Your task to perform on an android device: Open Maps and search for coffee Image 0: 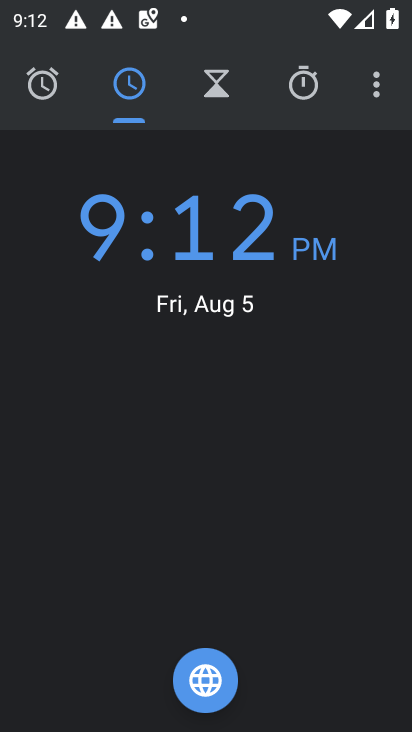
Step 0: press home button
Your task to perform on an android device: Open Maps and search for coffee Image 1: 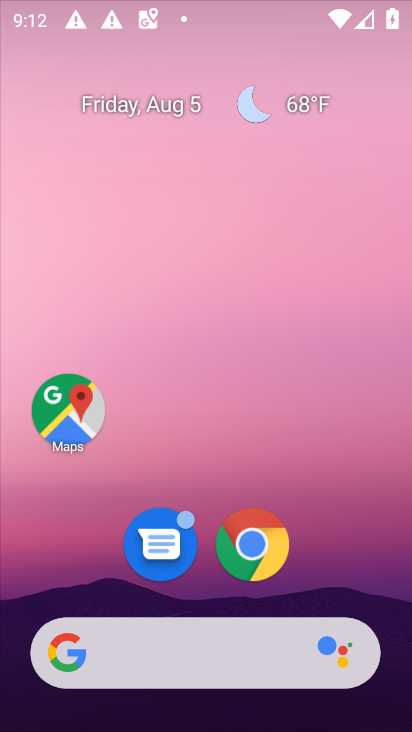
Step 1: drag from (293, 436) to (253, 6)
Your task to perform on an android device: Open Maps and search for coffee Image 2: 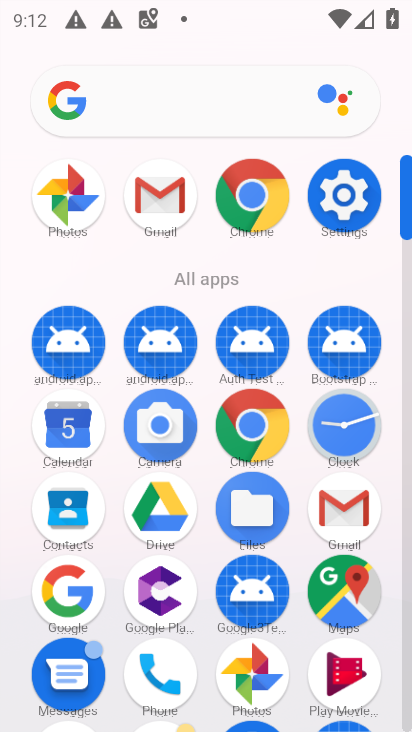
Step 2: click (333, 577)
Your task to perform on an android device: Open Maps and search for coffee Image 3: 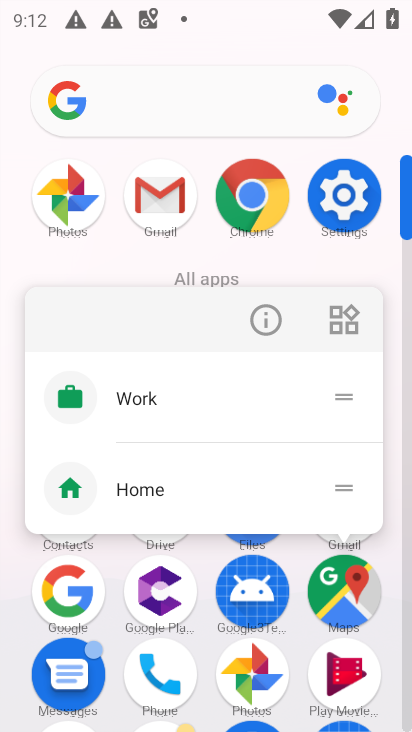
Step 3: click (350, 604)
Your task to perform on an android device: Open Maps and search for coffee Image 4: 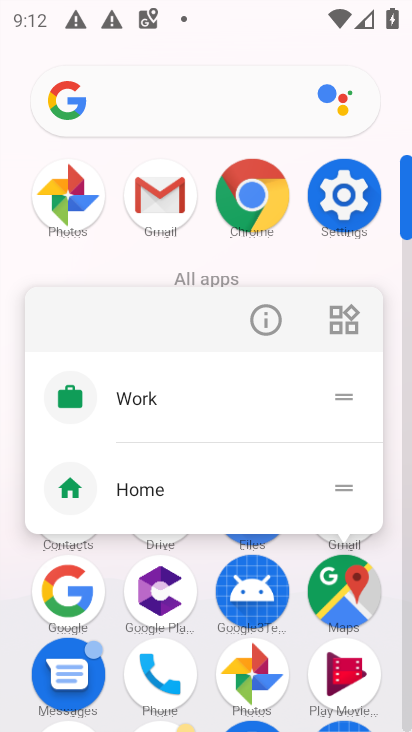
Step 4: click (346, 603)
Your task to perform on an android device: Open Maps and search for coffee Image 5: 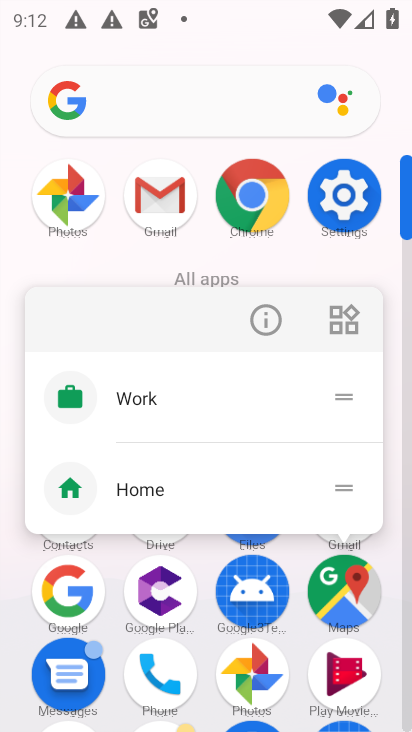
Step 5: click (346, 602)
Your task to perform on an android device: Open Maps and search for coffee Image 6: 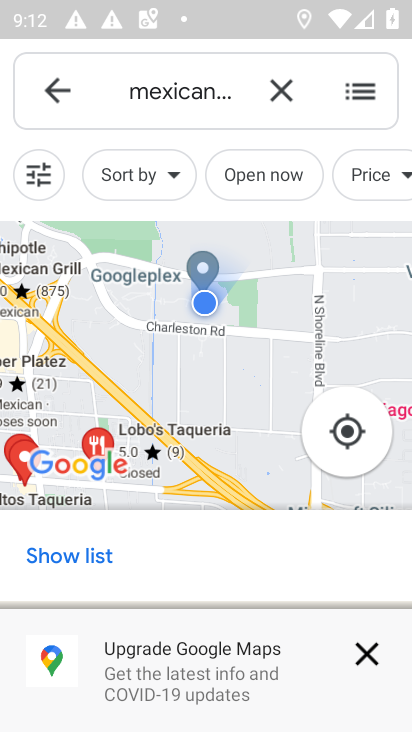
Step 6: click (281, 98)
Your task to perform on an android device: Open Maps and search for coffee Image 7: 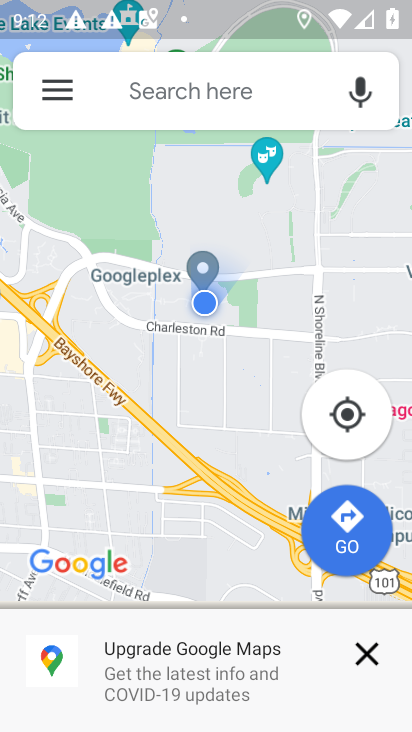
Step 7: click (197, 78)
Your task to perform on an android device: Open Maps and search for coffee Image 8: 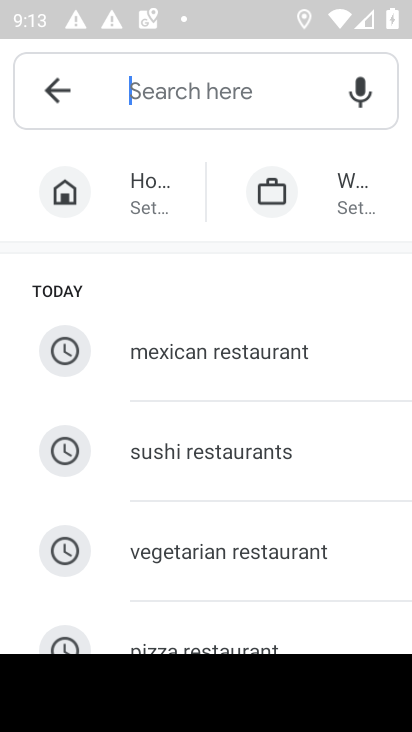
Step 8: type "coffee"
Your task to perform on an android device: Open Maps and search for coffee Image 9: 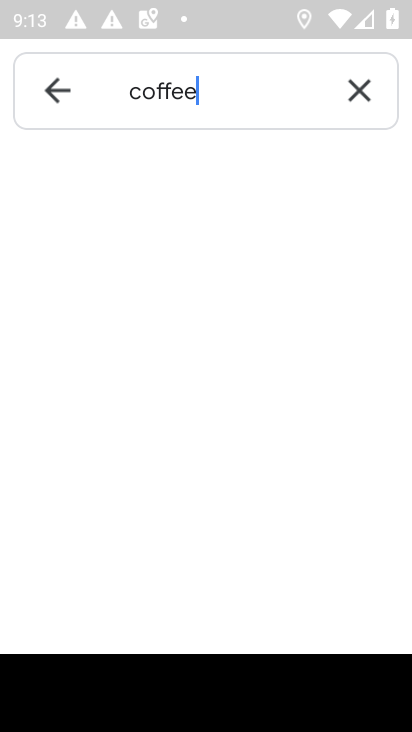
Step 9: press enter
Your task to perform on an android device: Open Maps and search for coffee Image 10: 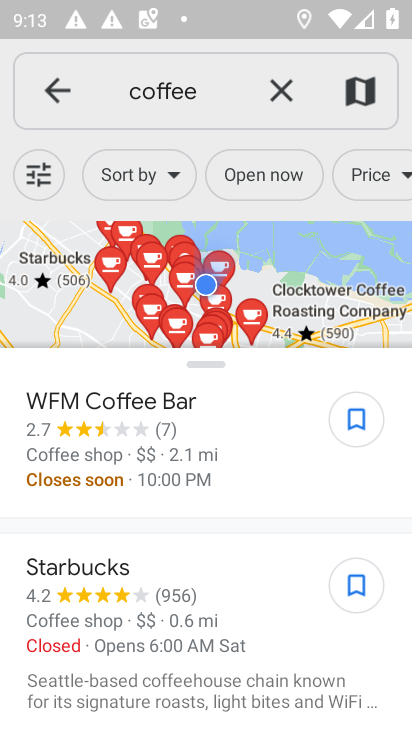
Step 10: task complete